Your task to perform on an android device: toggle wifi Image 0: 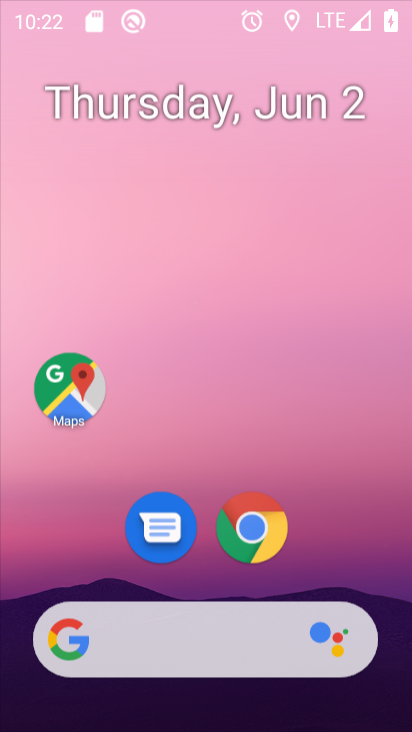
Step 0: click (203, 279)
Your task to perform on an android device: toggle wifi Image 1: 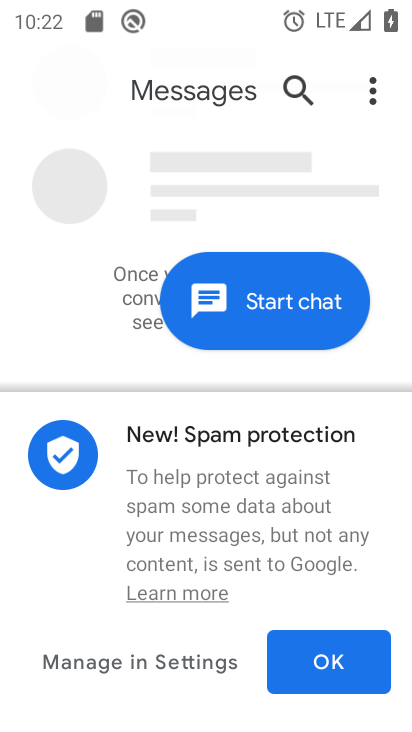
Step 1: drag from (183, 590) to (167, 473)
Your task to perform on an android device: toggle wifi Image 2: 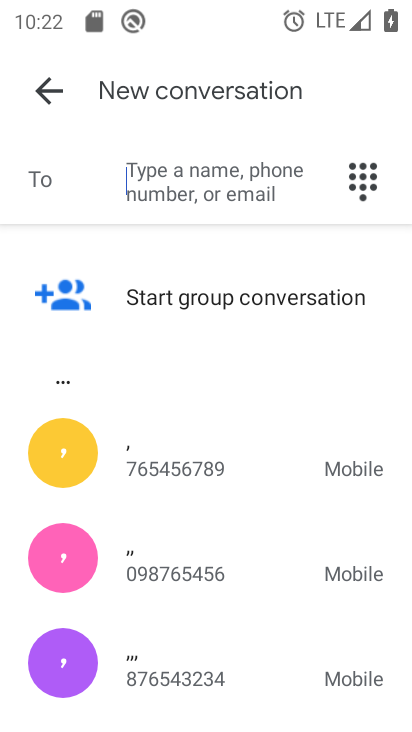
Step 2: press home button
Your task to perform on an android device: toggle wifi Image 3: 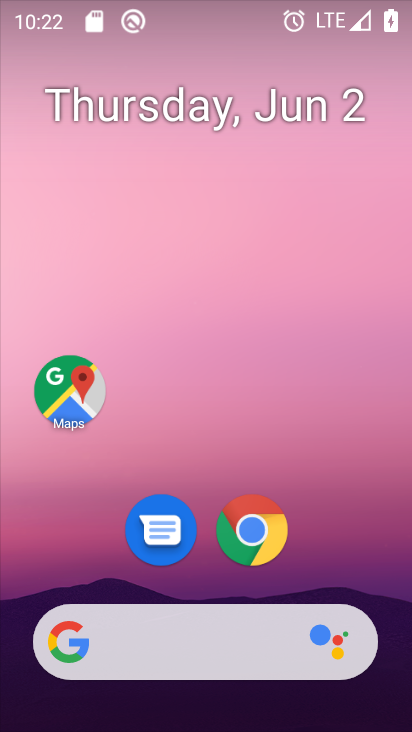
Step 3: drag from (156, 554) to (156, 205)
Your task to perform on an android device: toggle wifi Image 4: 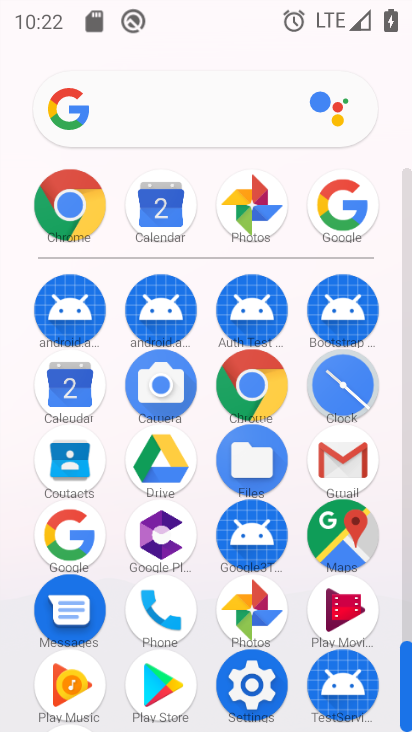
Step 4: drag from (199, 656) to (213, 293)
Your task to perform on an android device: toggle wifi Image 5: 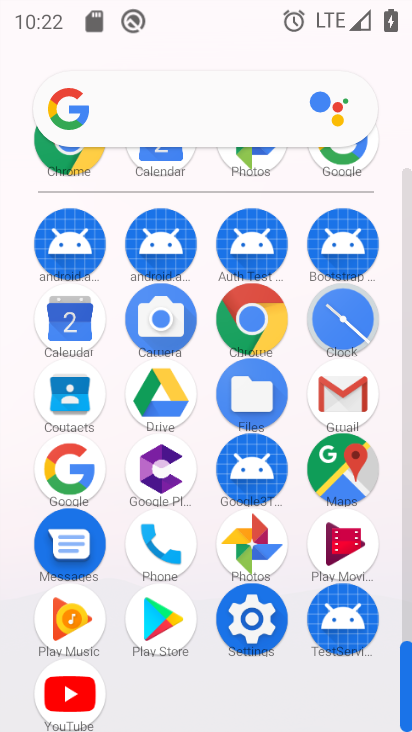
Step 5: click (232, 613)
Your task to perform on an android device: toggle wifi Image 6: 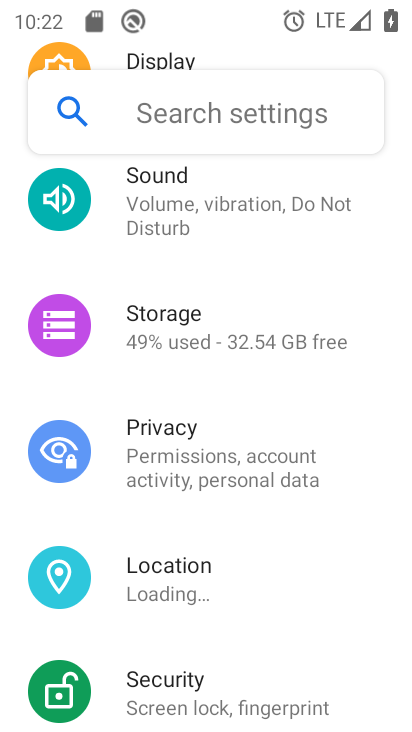
Step 6: drag from (209, 181) to (188, 649)
Your task to perform on an android device: toggle wifi Image 7: 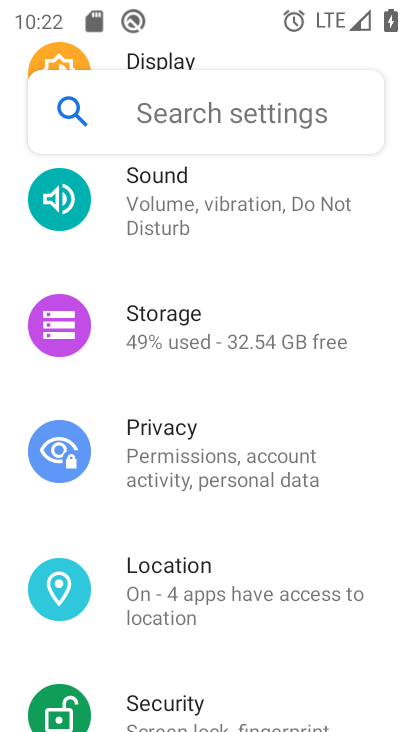
Step 7: drag from (213, 178) to (193, 626)
Your task to perform on an android device: toggle wifi Image 8: 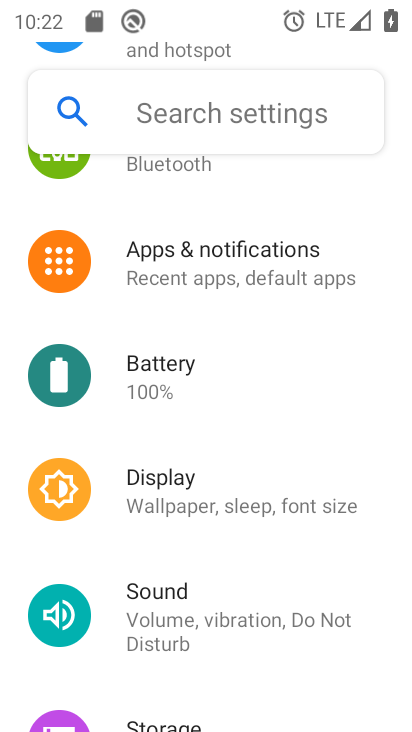
Step 8: drag from (184, 211) to (168, 671)
Your task to perform on an android device: toggle wifi Image 9: 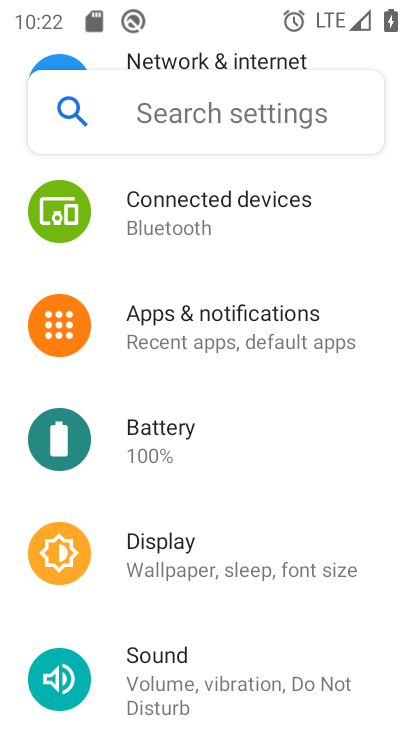
Step 9: drag from (168, 182) to (136, 678)
Your task to perform on an android device: toggle wifi Image 10: 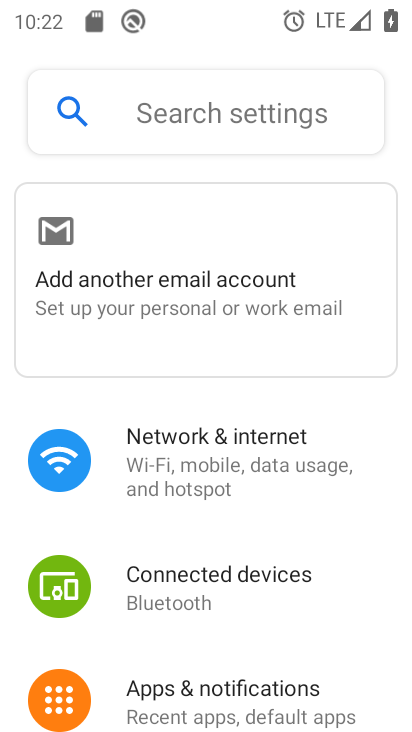
Step 10: click (148, 443)
Your task to perform on an android device: toggle wifi Image 11: 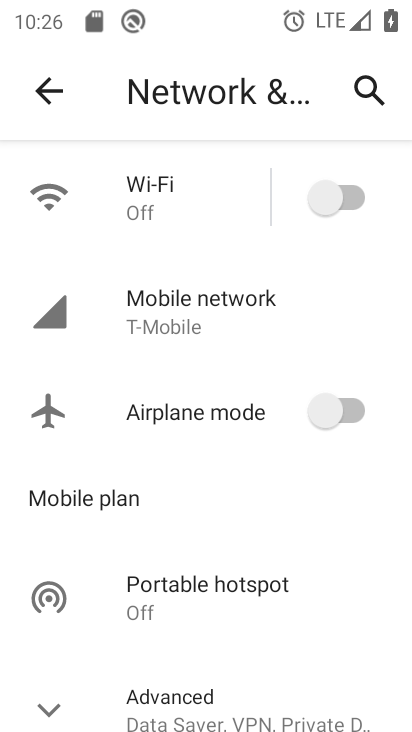
Step 11: click (353, 194)
Your task to perform on an android device: toggle wifi Image 12: 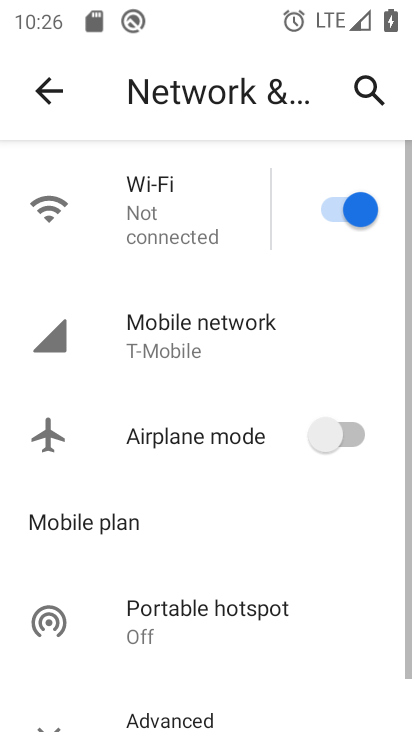
Step 12: task complete